Your task to perform on an android device: What's the weather going to be this weekend? Image 0: 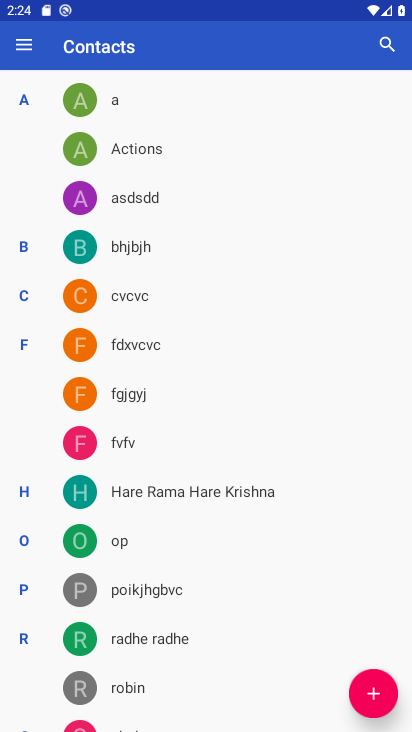
Step 0: press home button
Your task to perform on an android device: What's the weather going to be this weekend? Image 1: 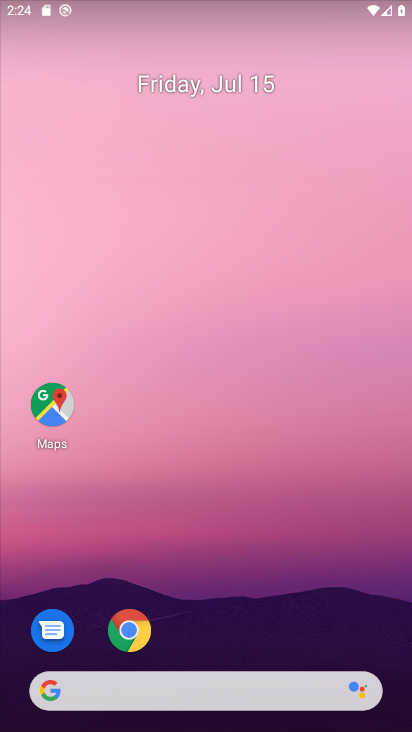
Step 1: drag from (318, 623) to (348, 91)
Your task to perform on an android device: What's the weather going to be this weekend? Image 2: 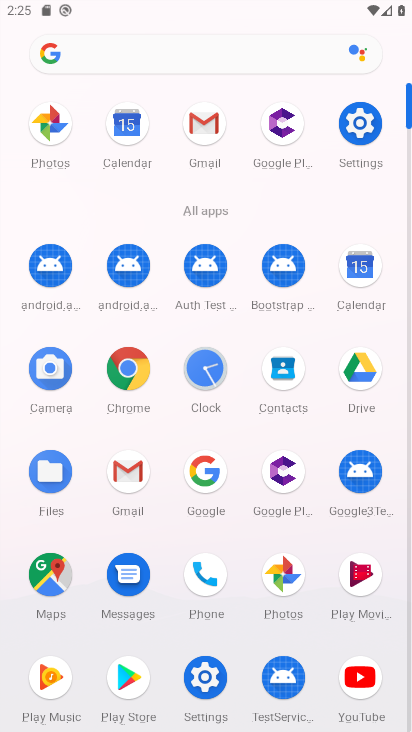
Step 2: click (373, 270)
Your task to perform on an android device: What's the weather going to be this weekend? Image 3: 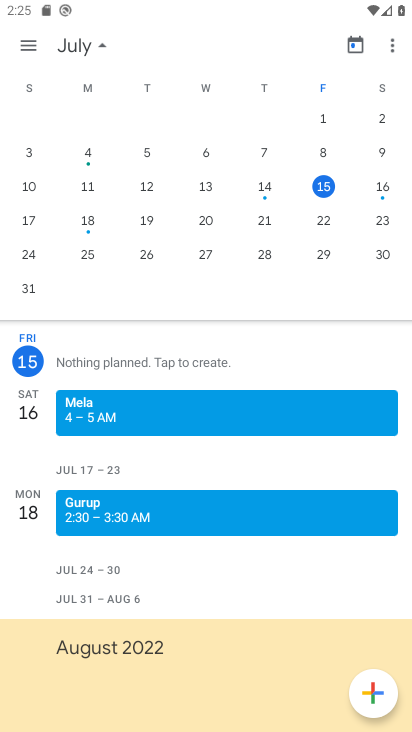
Step 3: task complete